Your task to perform on an android device: Go to Android settings Image 0: 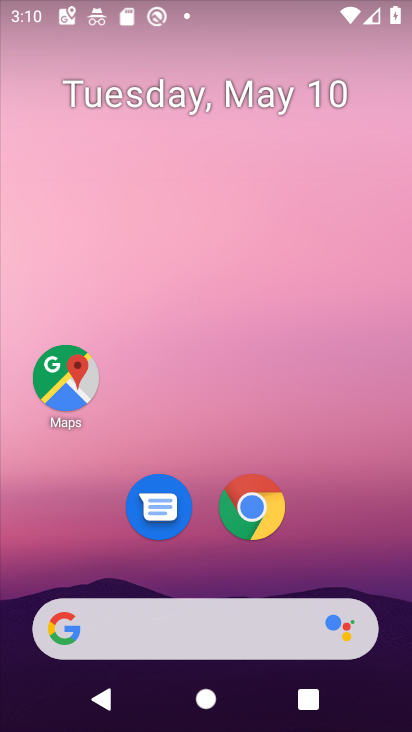
Step 0: drag from (250, 577) to (244, 141)
Your task to perform on an android device: Go to Android settings Image 1: 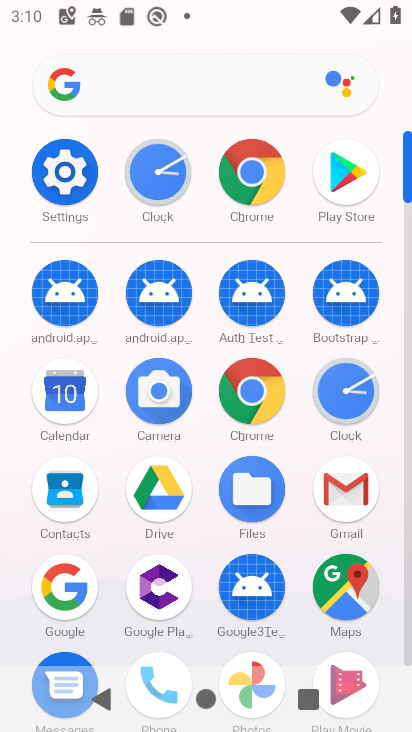
Step 1: drag from (208, 541) to (212, 107)
Your task to perform on an android device: Go to Android settings Image 2: 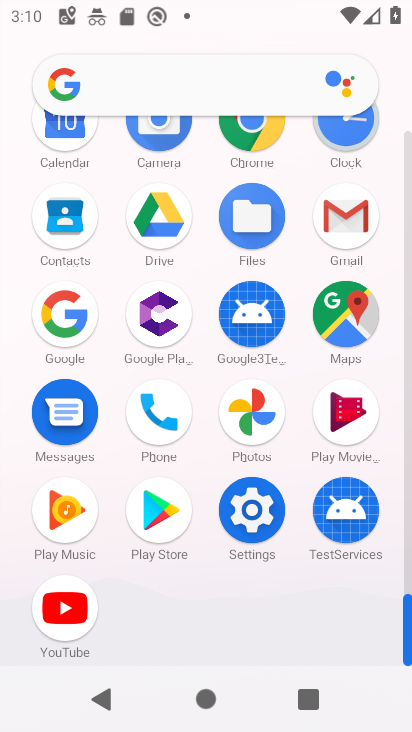
Step 2: click (256, 510)
Your task to perform on an android device: Go to Android settings Image 3: 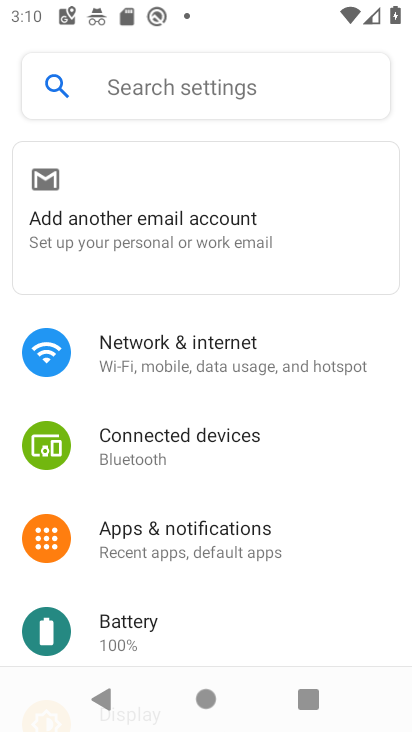
Step 3: drag from (217, 593) to (224, 276)
Your task to perform on an android device: Go to Android settings Image 4: 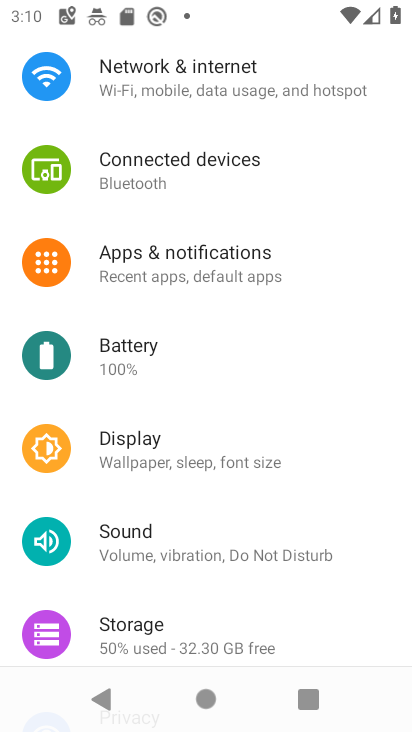
Step 4: drag from (207, 509) to (206, 598)
Your task to perform on an android device: Go to Android settings Image 5: 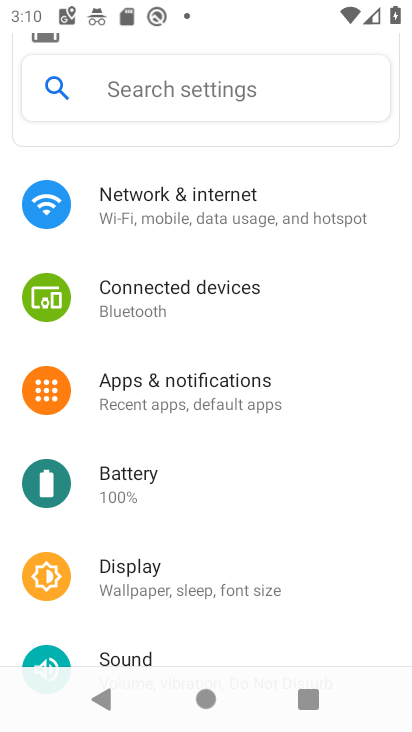
Step 5: drag from (171, 227) to (155, 278)
Your task to perform on an android device: Go to Android settings Image 6: 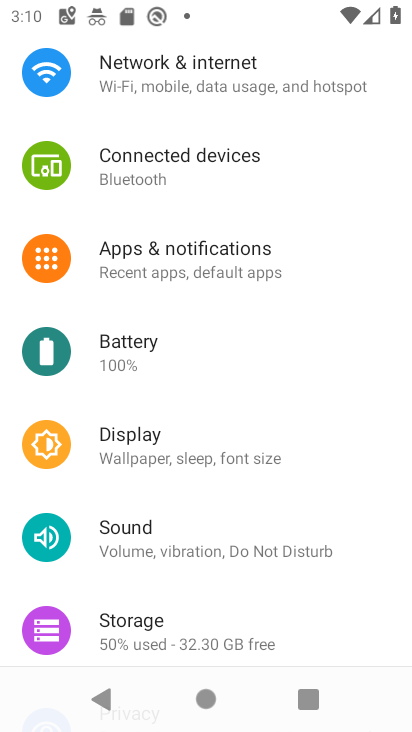
Step 6: drag from (121, 630) to (164, 44)
Your task to perform on an android device: Go to Android settings Image 7: 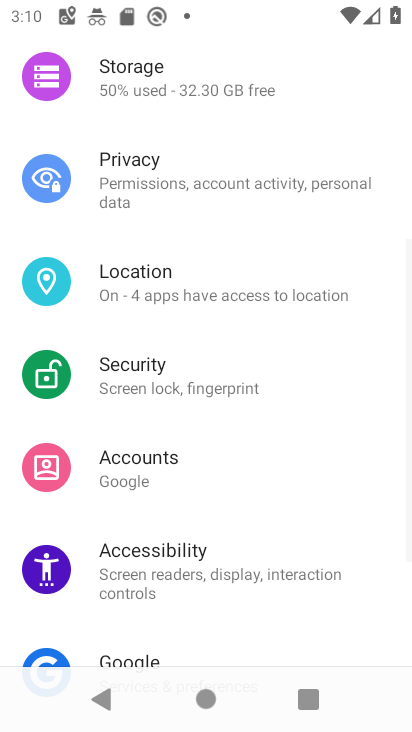
Step 7: drag from (140, 569) to (140, 102)
Your task to perform on an android device: Go to Android settings Image 8: 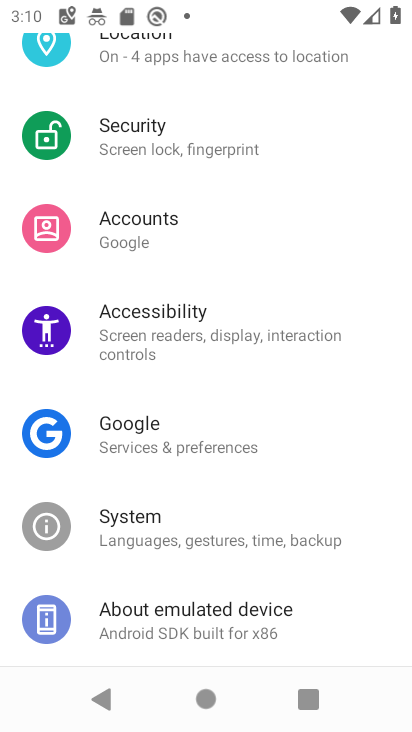
Step 8: click (157, 623)
Your task to perform on an android device: Go to Android settings Image 9: 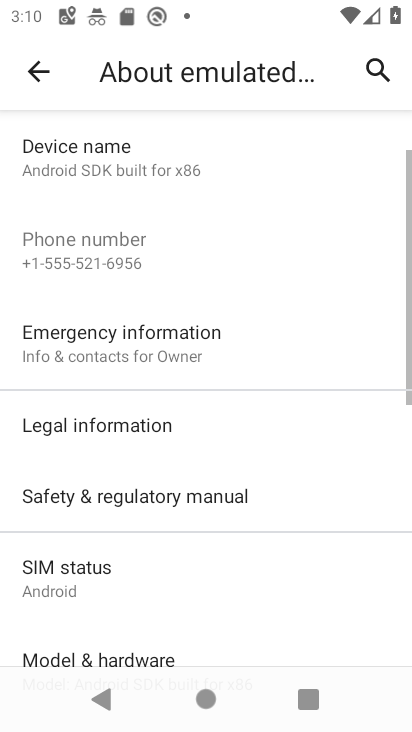
Step 9: drag from (157, 546) to (162, 189)
Your task to perform on an android device: Go to Android settings Image 10: 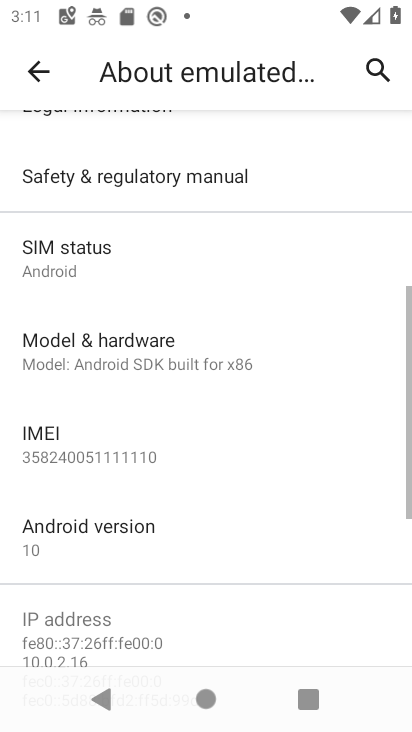
Step 10: click (86, 535)
Your task to perform on an android device: Go to Android settings Image 11: 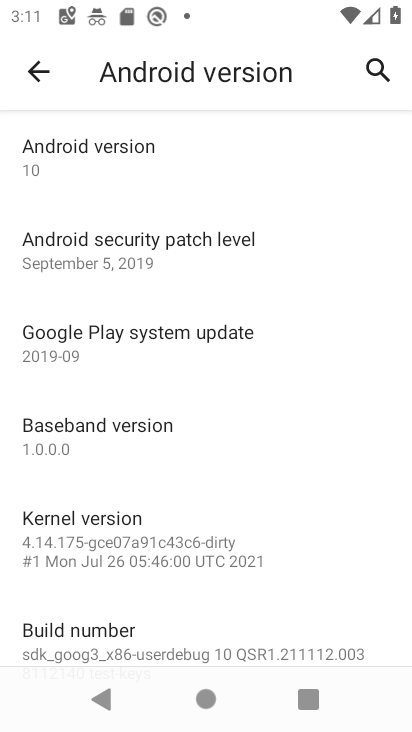
Step 11: task complete